Your task to perform on an android device: Turn on the flashlight Image 0: 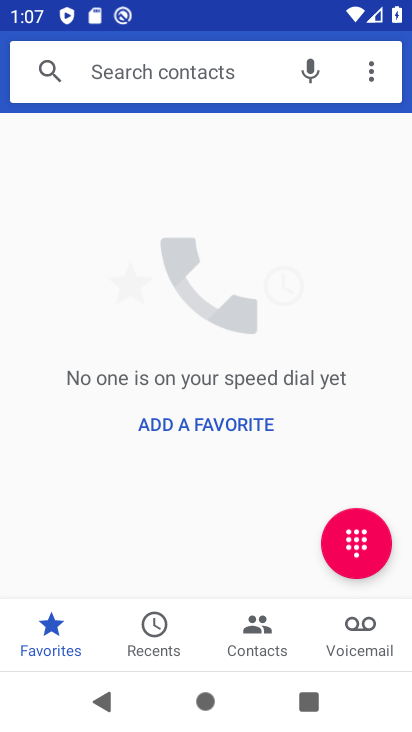
Step 0: press home button
Your task to perform on an android device: Turn on the flashlight Image 1: 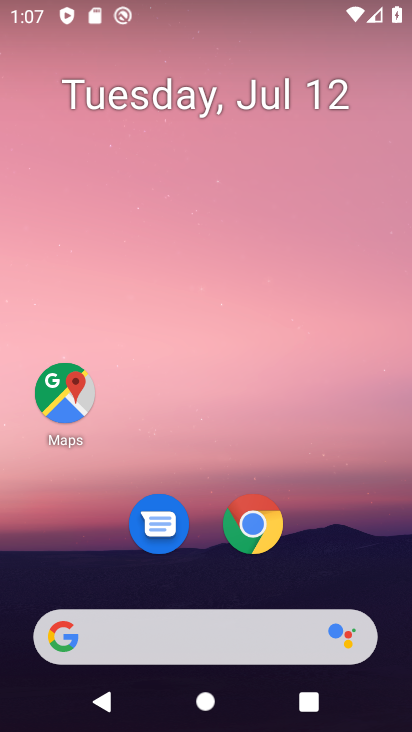
Step 1: drag from (215, 391) to (246, 25)
Your task to perform on an android device: Turn on the flashlight Image 2: 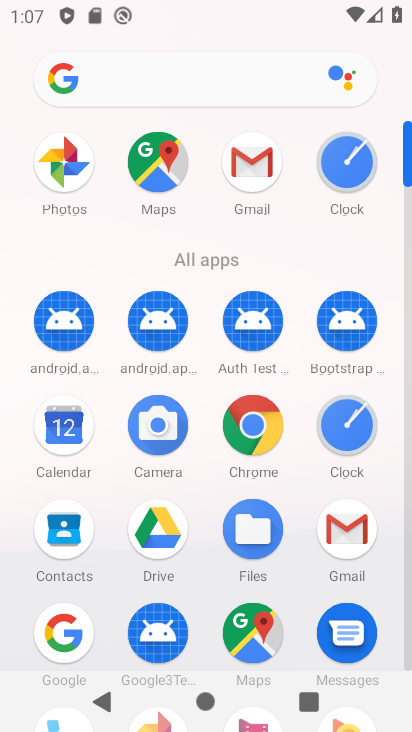
Step 2: drag from (203, 475) to (231, 79)
Your task to perform on an android device: Turn on the flashlight Image 3: 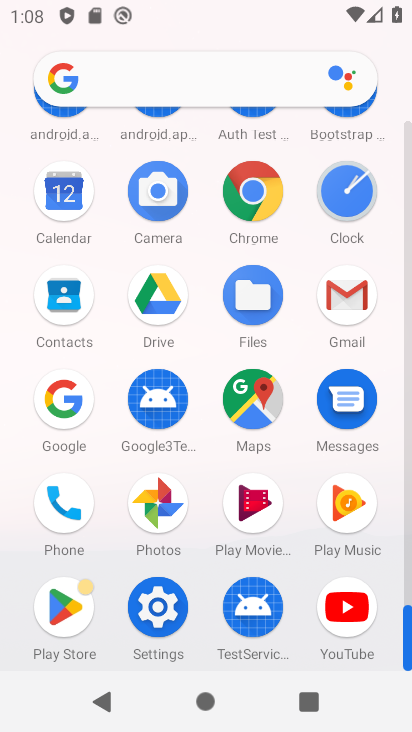
Step 3: click (169, 610)
Your task to perform on an android device: Turn on the flashlight Image 4: 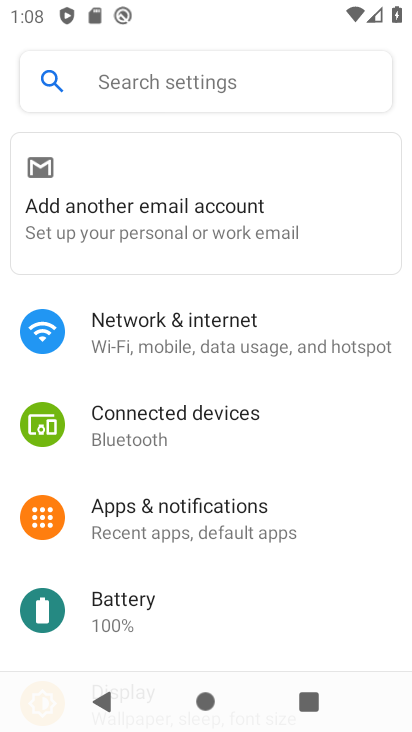
Step 4: click (230, 77)
Your task to perform on an android device: Turn on the flashlight Image 5: 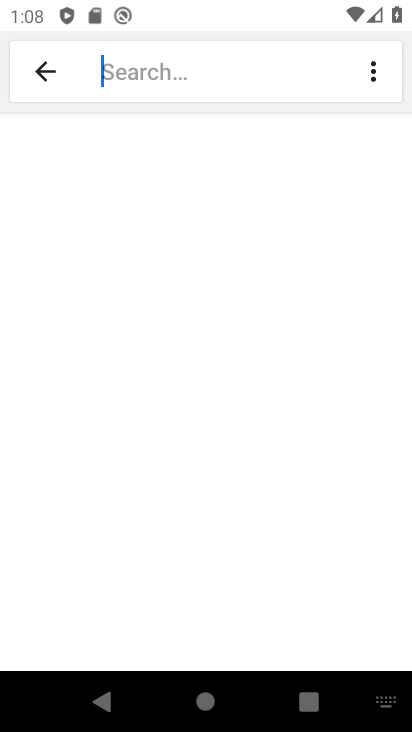
Step 5: type "Flashlight"
Your task to perform on an android device: Turn on the flashlight Image 6: 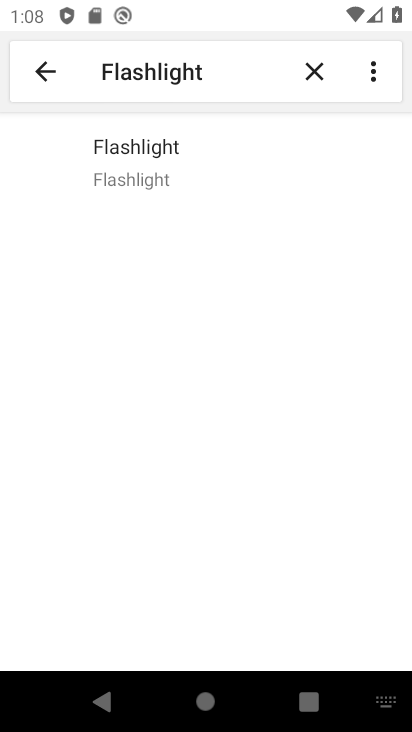
Step 6: click (147, 148)
Your task to perform on an android device: Turn on the flashlight Image 7: 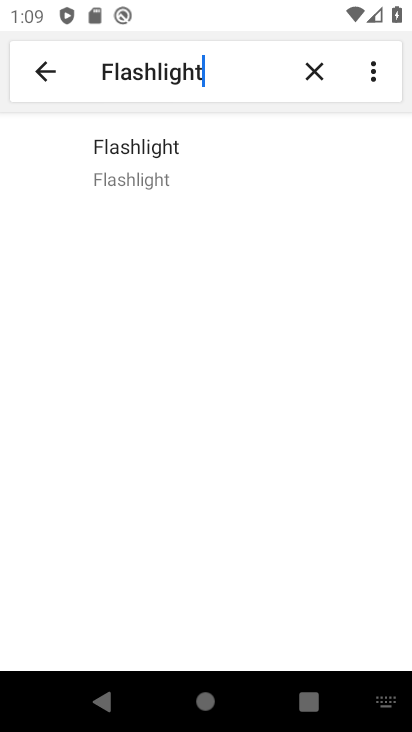
Step 7: task complete